Your task to perform on an android device: uninstall "Microsoft Outlook" Image 0: 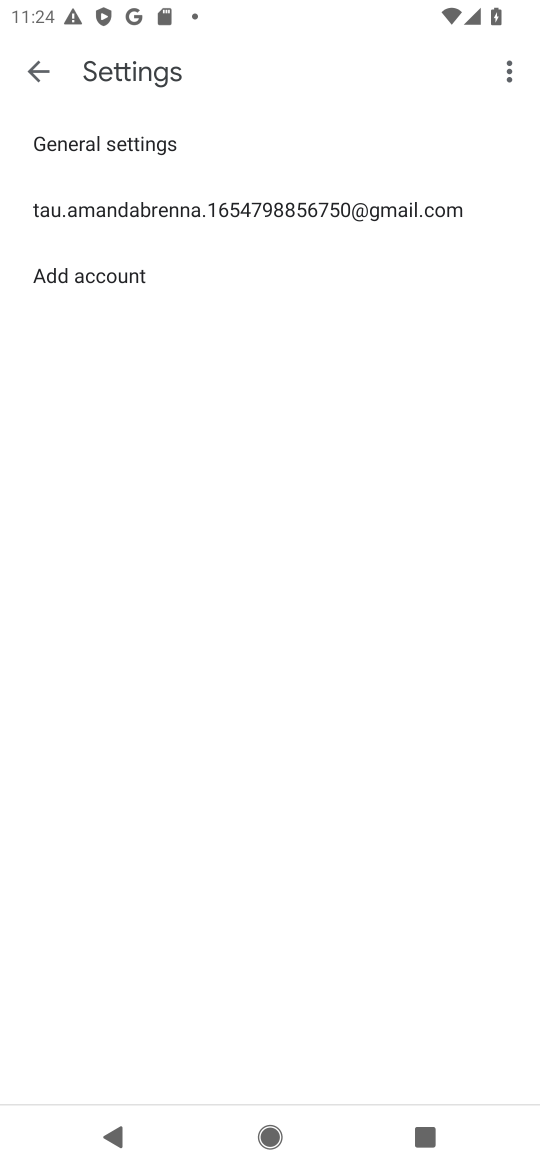
Step 0: press home button
Your task to perform on an android device: uninstall "Microsoft Outlook" Image 1: 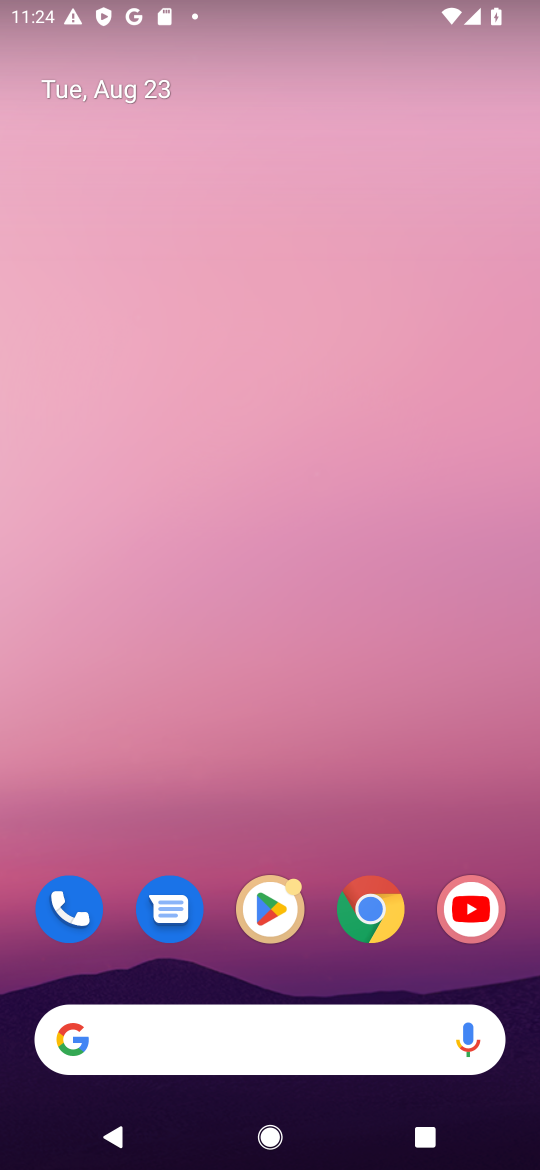
Step 1: click (265, 914)
Your task to perform on an android device: uninstall "Microsoft Outlook" Image 2: 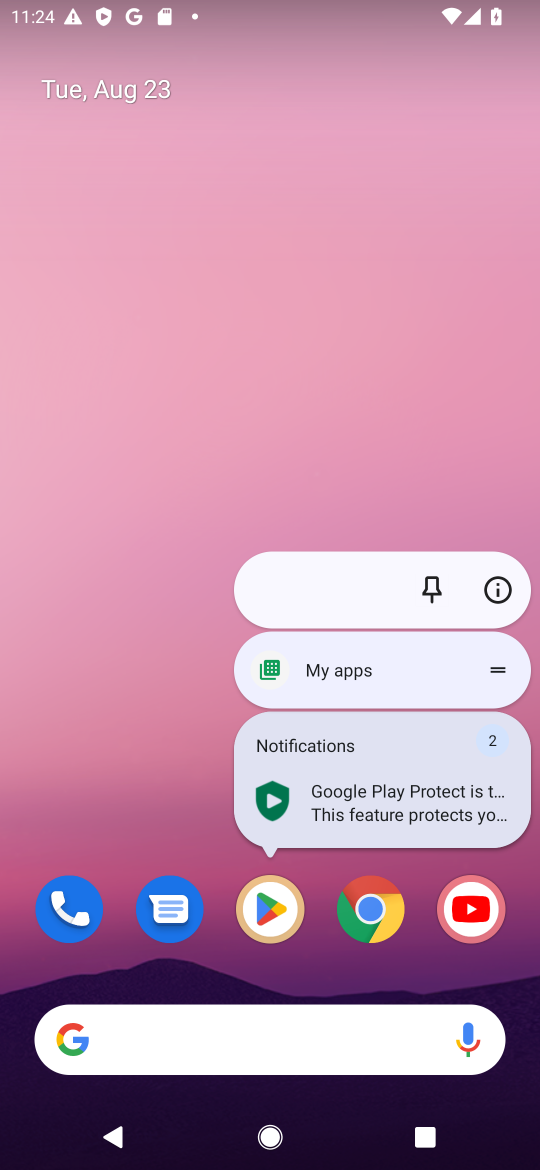
Step 2: click (265, 915)
Your task to perform on an android device: uninstall "Microsoft Outlook" Image 3: 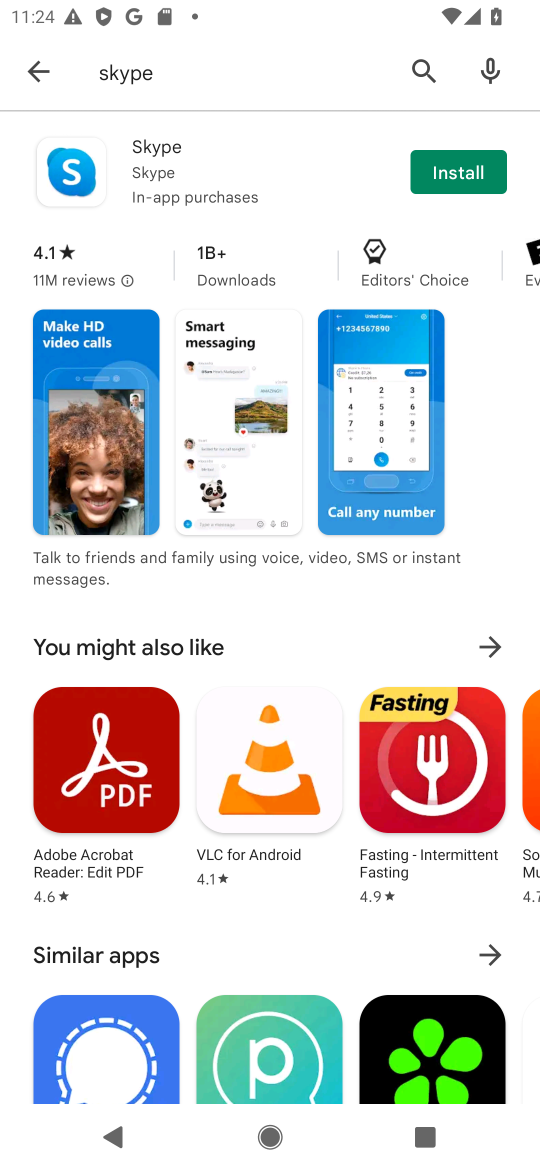
Step 3: click (191, 87)
Your task to perform on an android device: uninstall "Microsoft Outlook" Image 4: 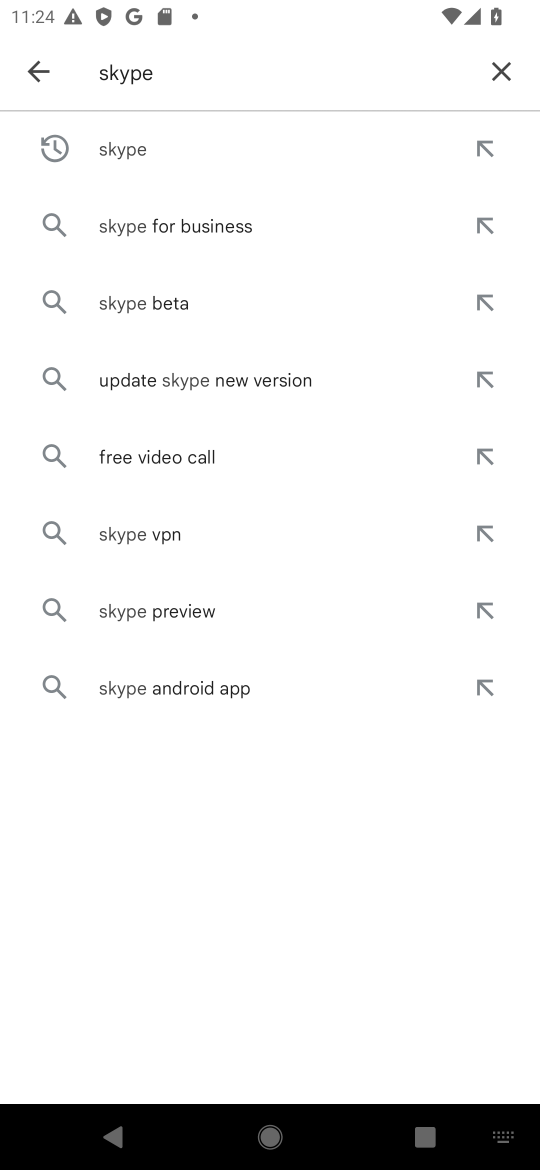
Step 4: click (493, 54)
Your task to perform on an android device: uninstall "Microsoft Outlook" Image 5: 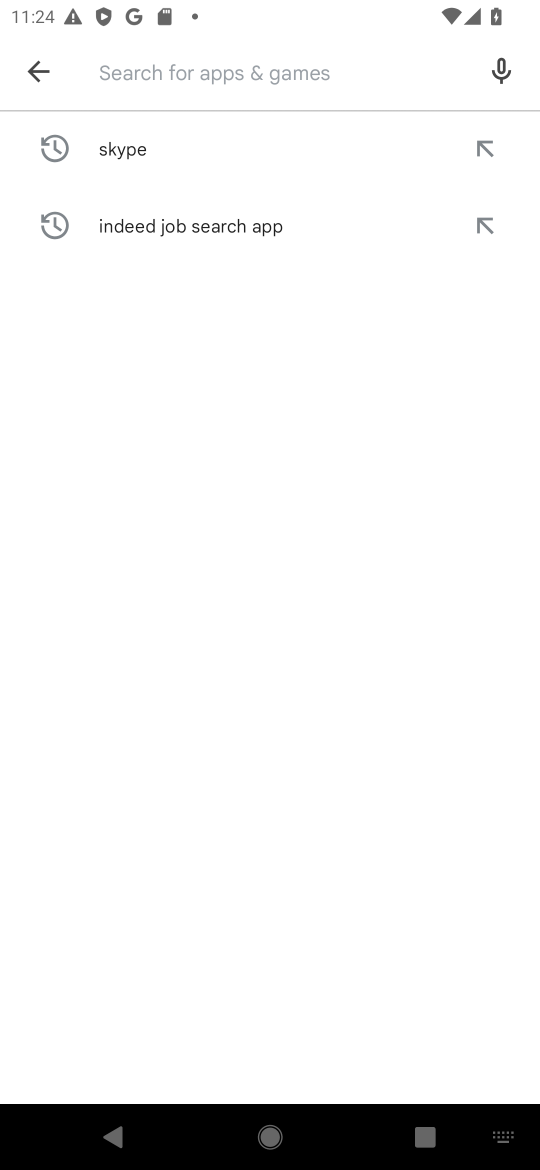
Step 5: type "MIcrosoft Outlook"
Your task to perform on an android device: uninstall "Microsoft Outlook" Image 6: 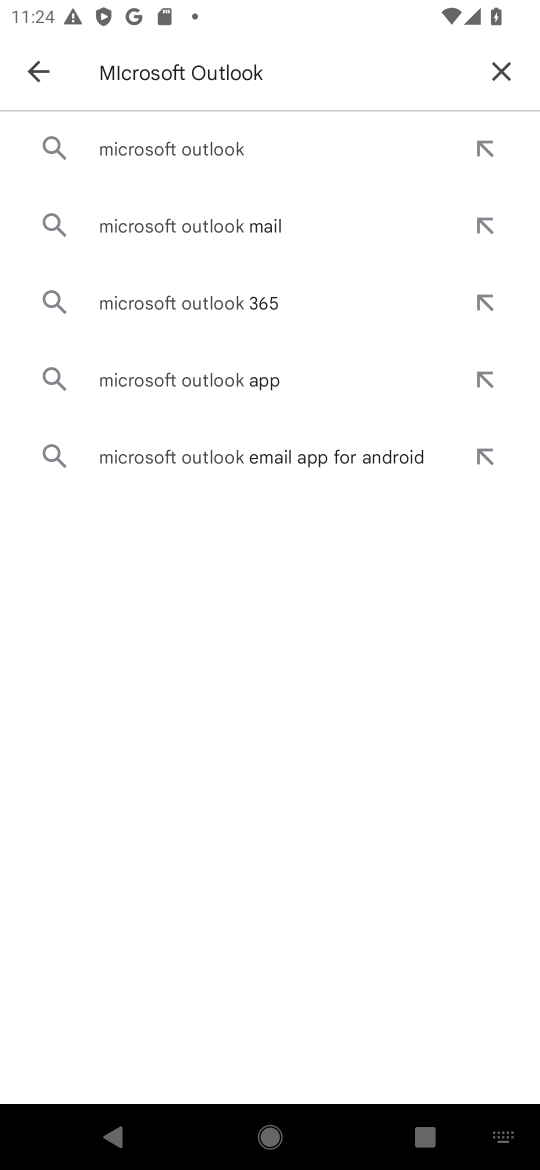
Step 6: click (213, 149)
Your task to perform on an android device: uninstall "Microsoft Outlook" Image 7: 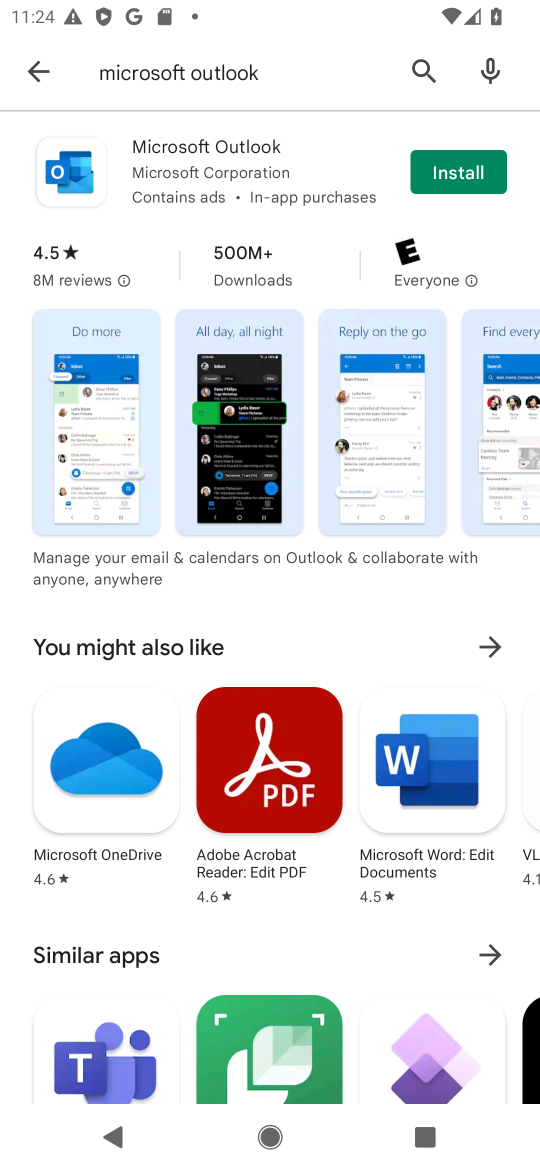
Step 7: task complete